Your task to perform on an android device: turn notification dots off Image 0: 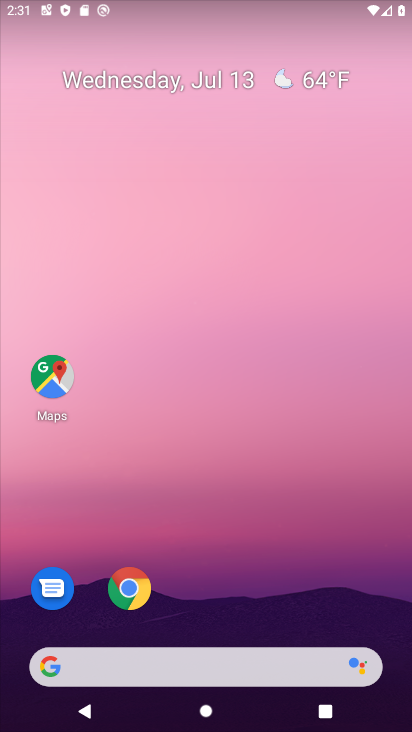
Step 0: drag from (256, 580) to (271, 45)
Your task to perform on an android device: turn notification dots off Image 1: 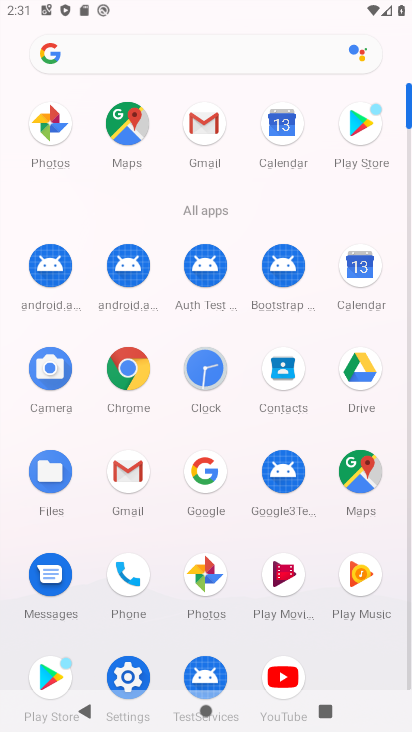
Step 1: click (121, 664)
Your task to perform on an android device: turn notification dots off Image 2: 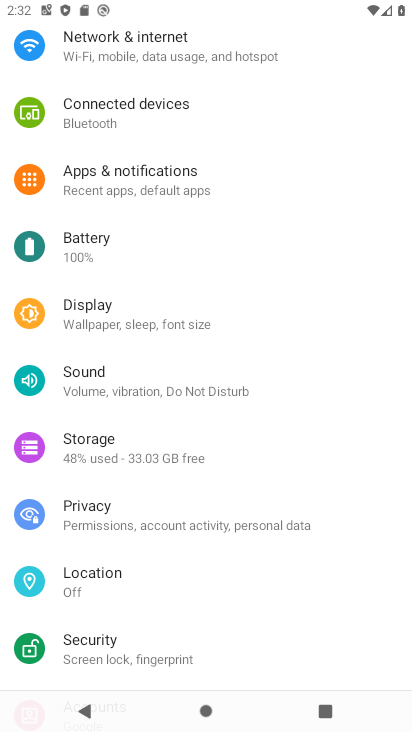
Step 2: click (136, 179)
Your task to perform on an android device: turn notification dots off Image 3: 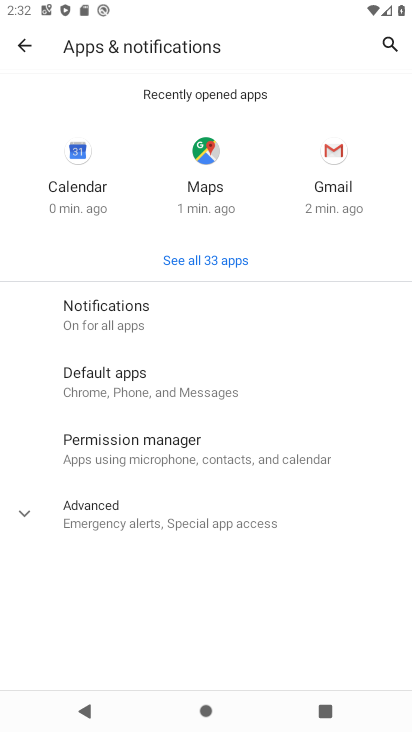
Step 3: click (83, 311)
Your task to perform on an android device: turn notification dots off Image 4: 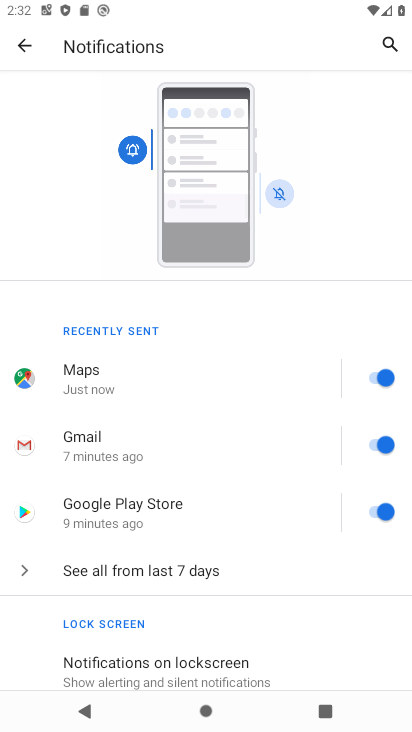
Step 4: drag from (276, 616) to (233, 244)
Your task to perform on an android device: turn notification dots off Image 5: 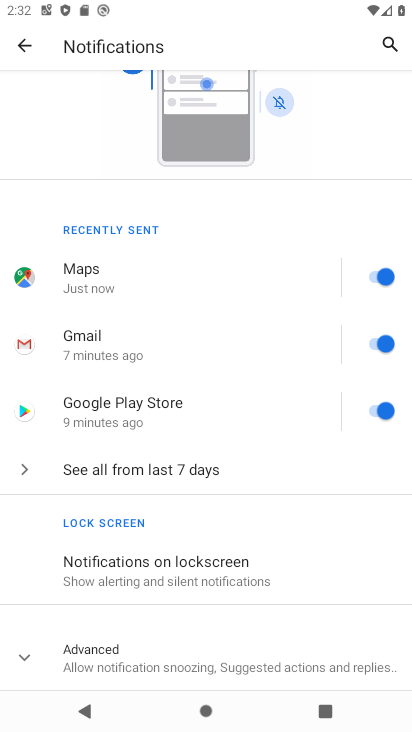
Step 5: click (186, 637)
Your task to perform on an android device: turn notification dots off Image 6: 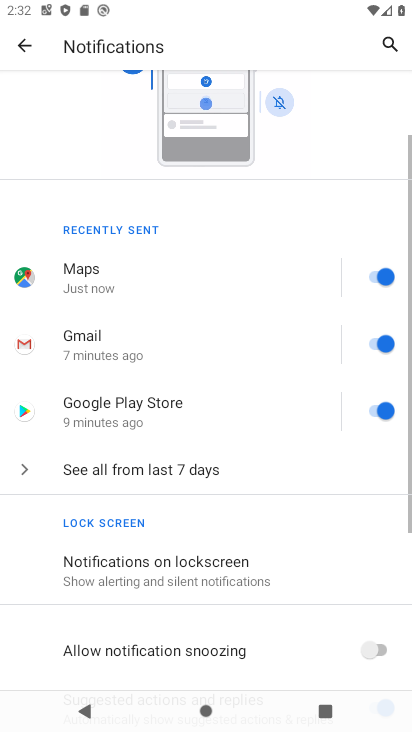
Step 6: drag from (186, 637) to (197, 162)
Your task to perform on an android device: turn notification dots off Image 7: 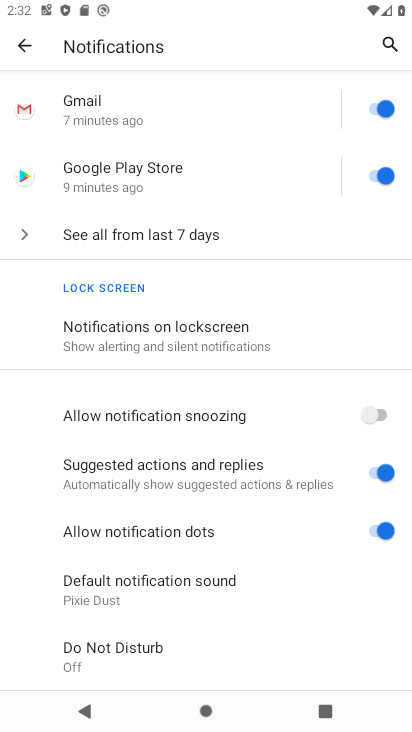
Step 7: click (382, 522)
Your task to perform on an android device: turn notification dots off Image 8: 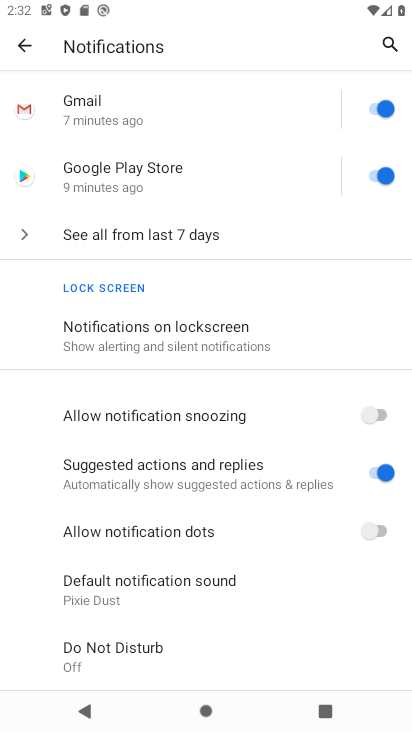
Step 8: task complete